Your task to perform on an android device: What's on my calendar tomorrow? Image 0: 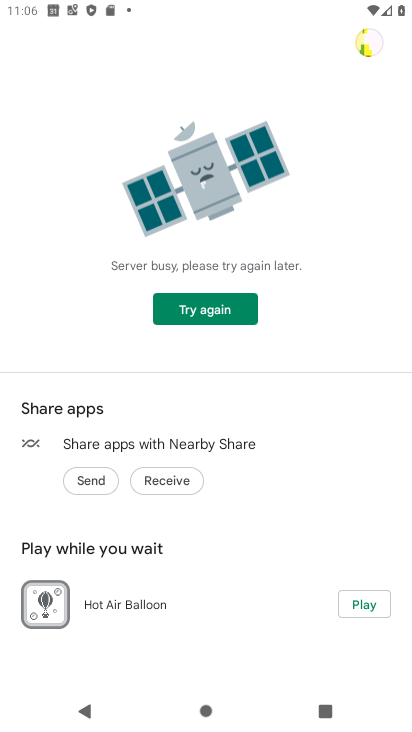
Step 0: press home button
Your task to perform on an android device: What's on my calendar tomorrow? Image 1: 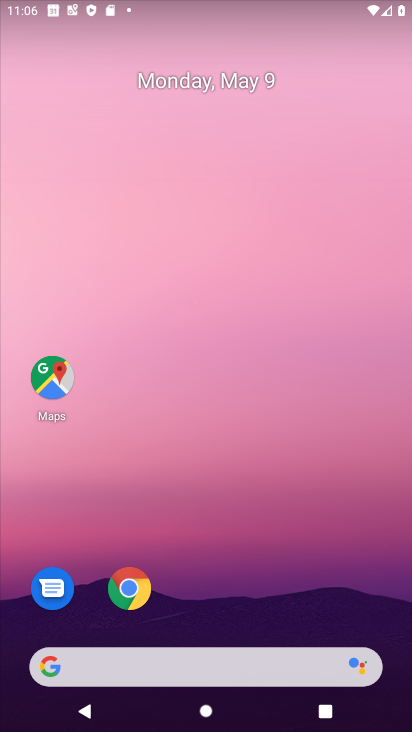
Step 1: drag from (224, 630) to (36, 17)
Your task to perform on an android device: What's on my calendar tomorrow? Image 2: 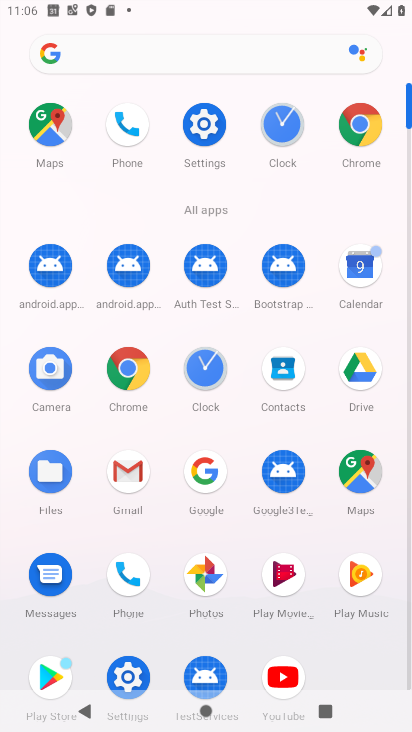
Step 2: click (365, 273)
Your task to perform on an android device: What's on my calendar tomorrow? Image 3: 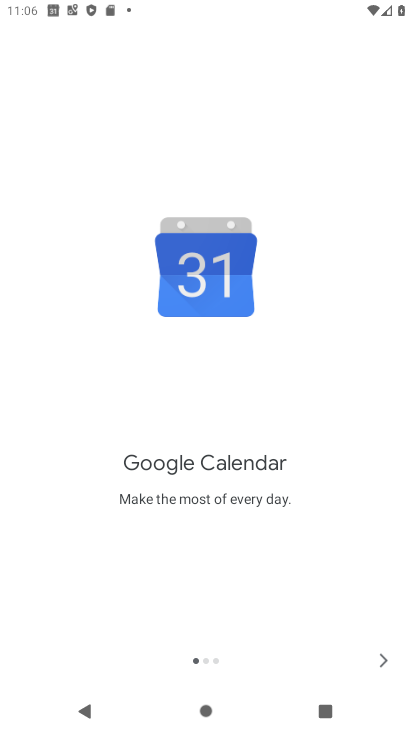
Step 3: click (379, 666)
Your task to perform on an android device: What's on my calendar tomorrow? Image 4: 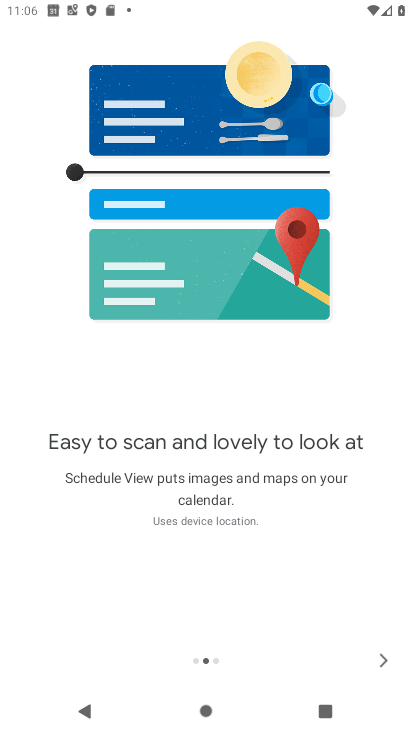
Step 4: click (379, 666)
Your task to perform on an android device: What's on my calendar tomorrow? Image 5: 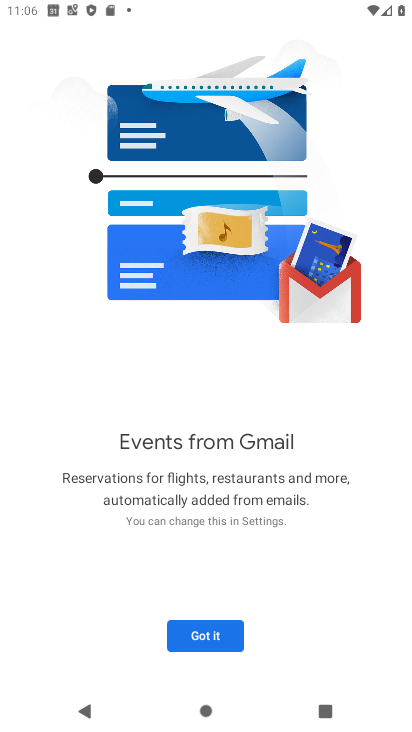
Step 5: click (217, 623)
Your task to perform on an android device: What's on my calendar tomorrow? Image 6: 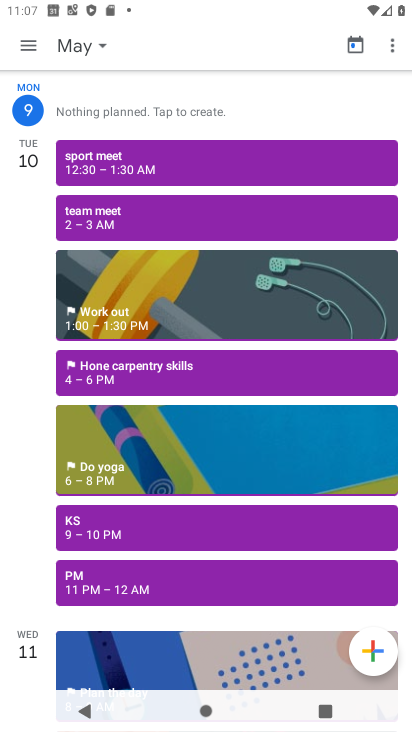
Step 6: click (33, 162)
Your task to perform on an android device: What's on my calendar tomorrow? Image 7: 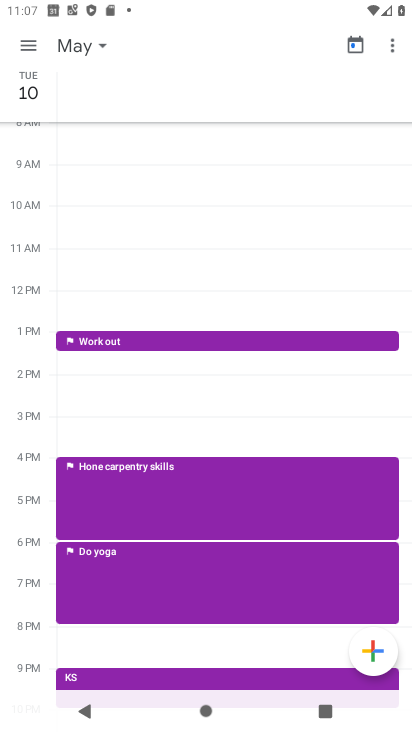
Step 7: task complete